Your task to perform on an android device: What's the news in Ecuador? Image 0: 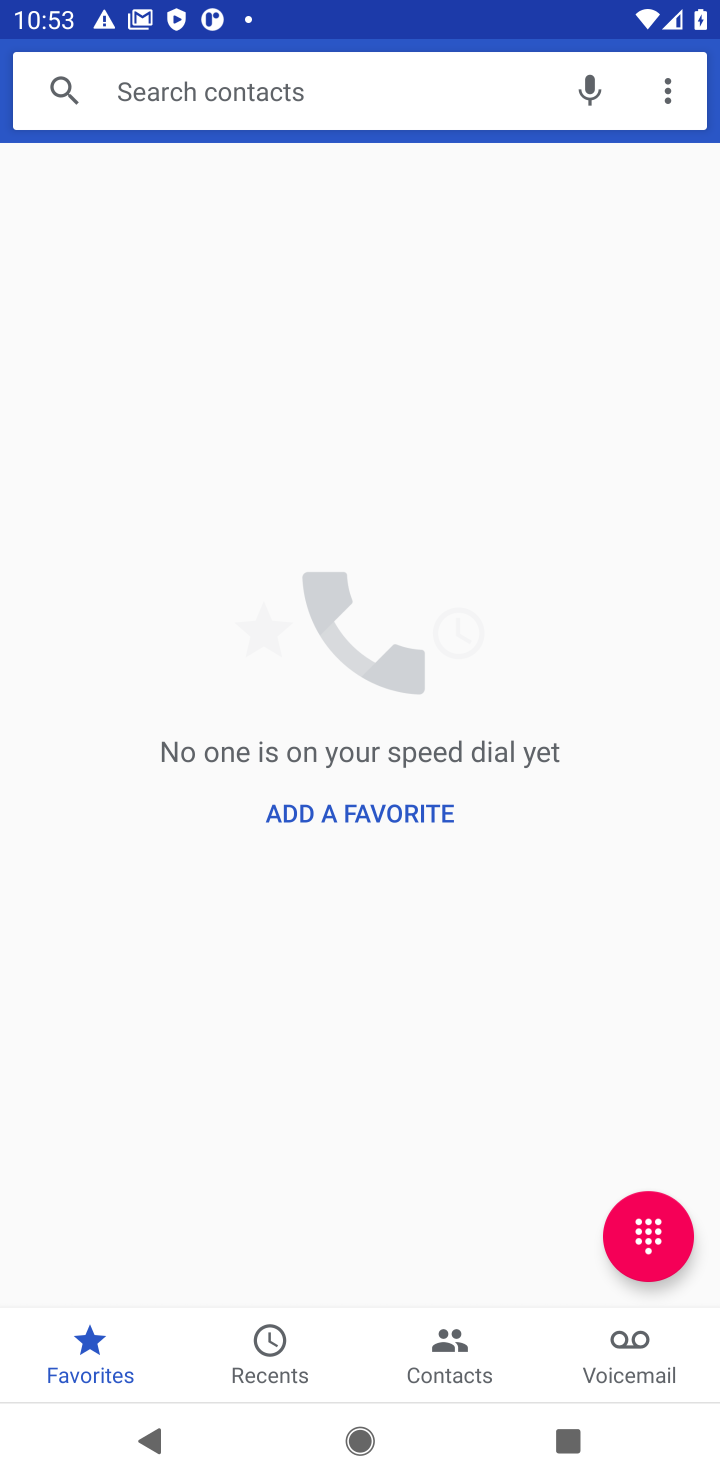
Step 0: press home button
Your task to perform on an android device: What's the news in Ecuador? Image 1: 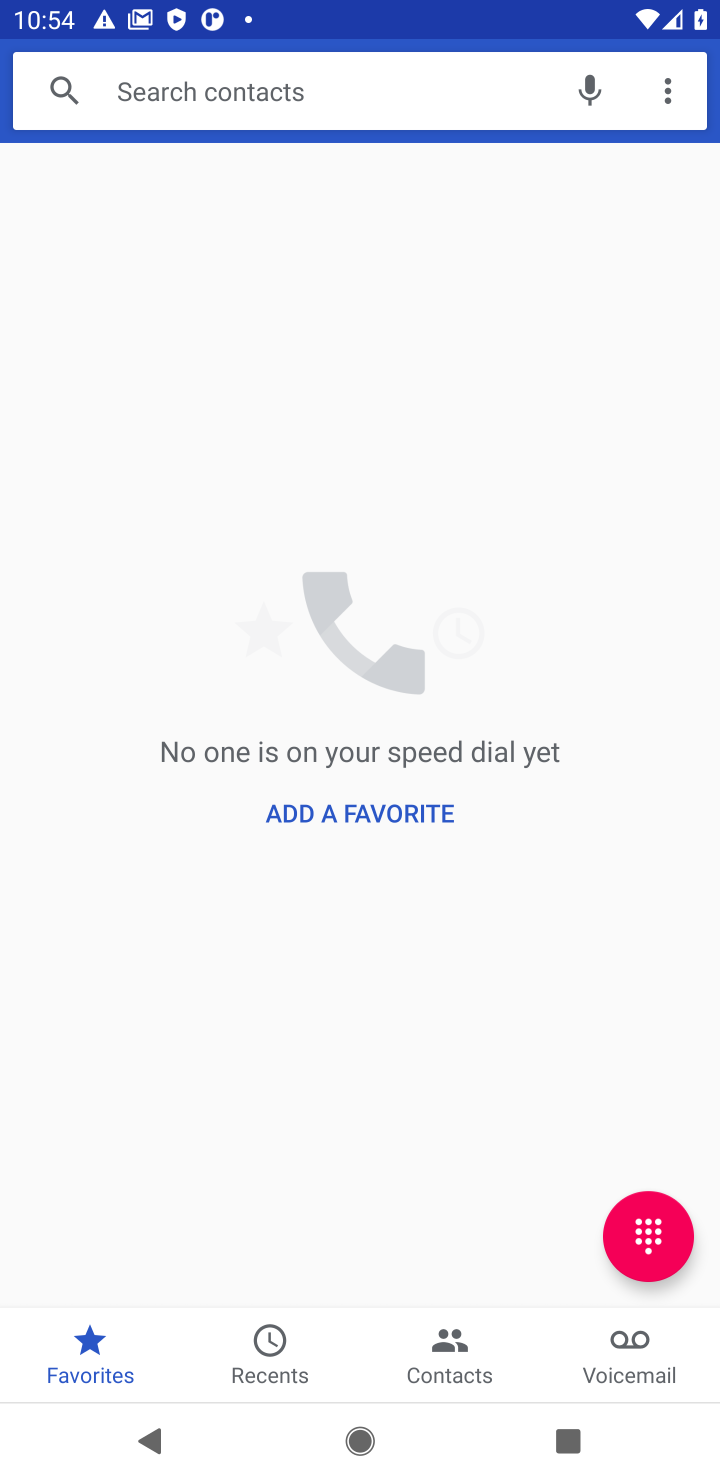
Step 1: press home button
Your task to perform on an android device: What's the news in Ecuador? Image 2: 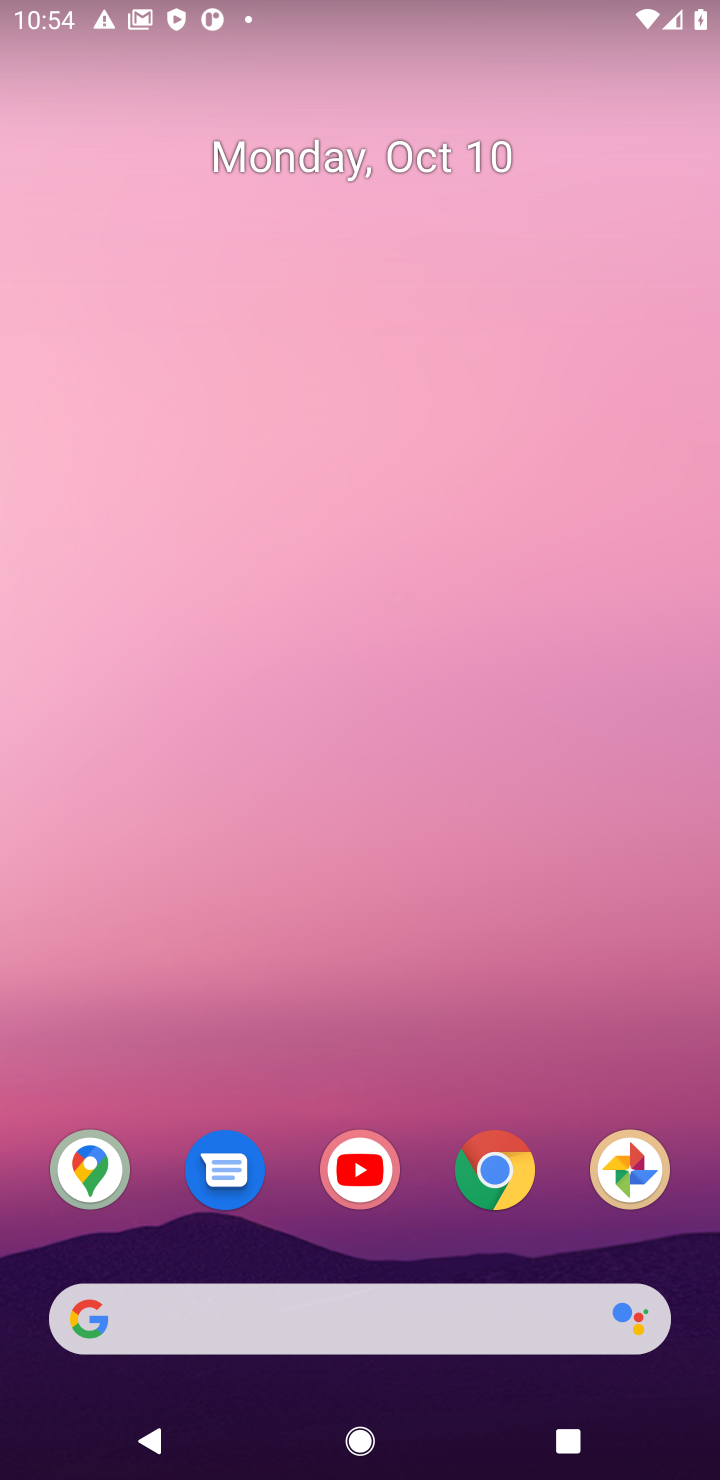
Step 2: click (510, 1155)
Your task to perform on an android device: What's the news in Ecuador? Image 3: 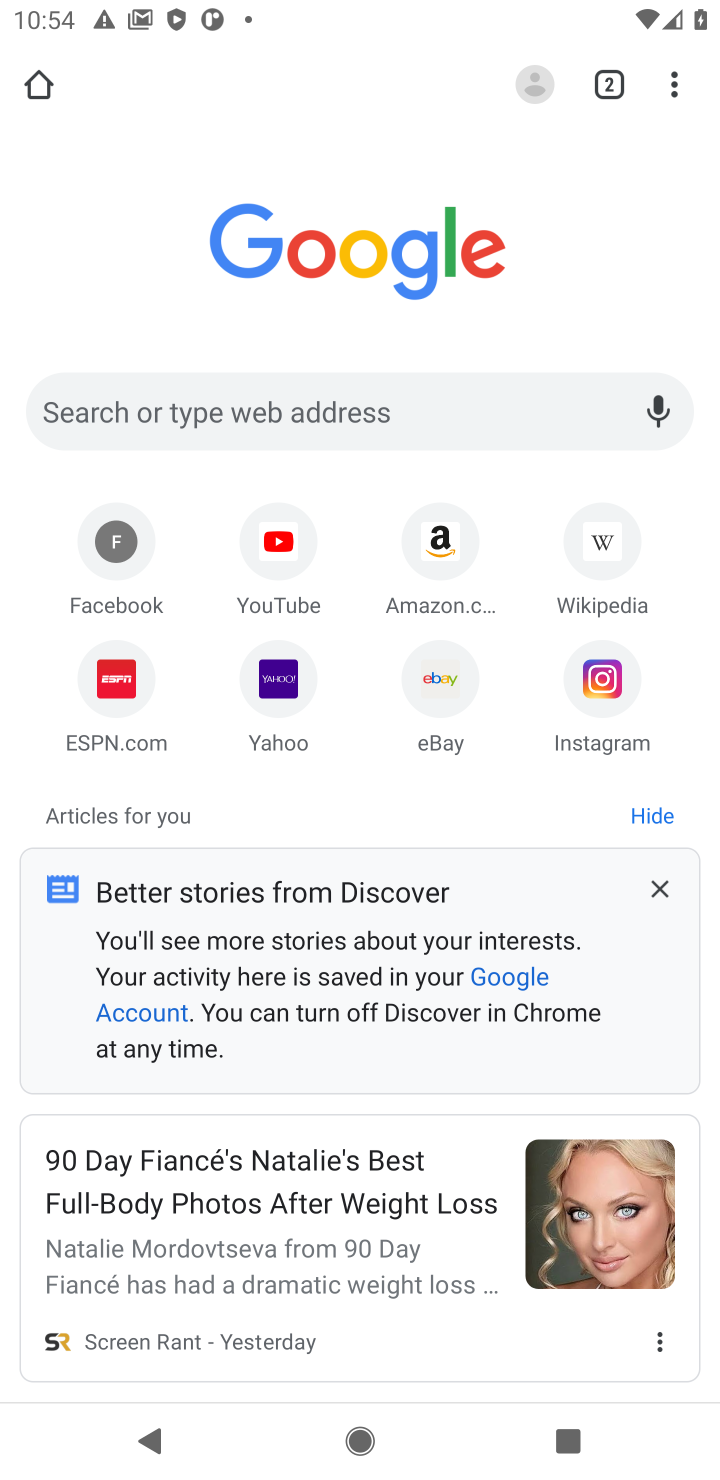
Step 3: click (403, 413)
Your task to perform on an android device: What's the news in Ecuador? Image 4: 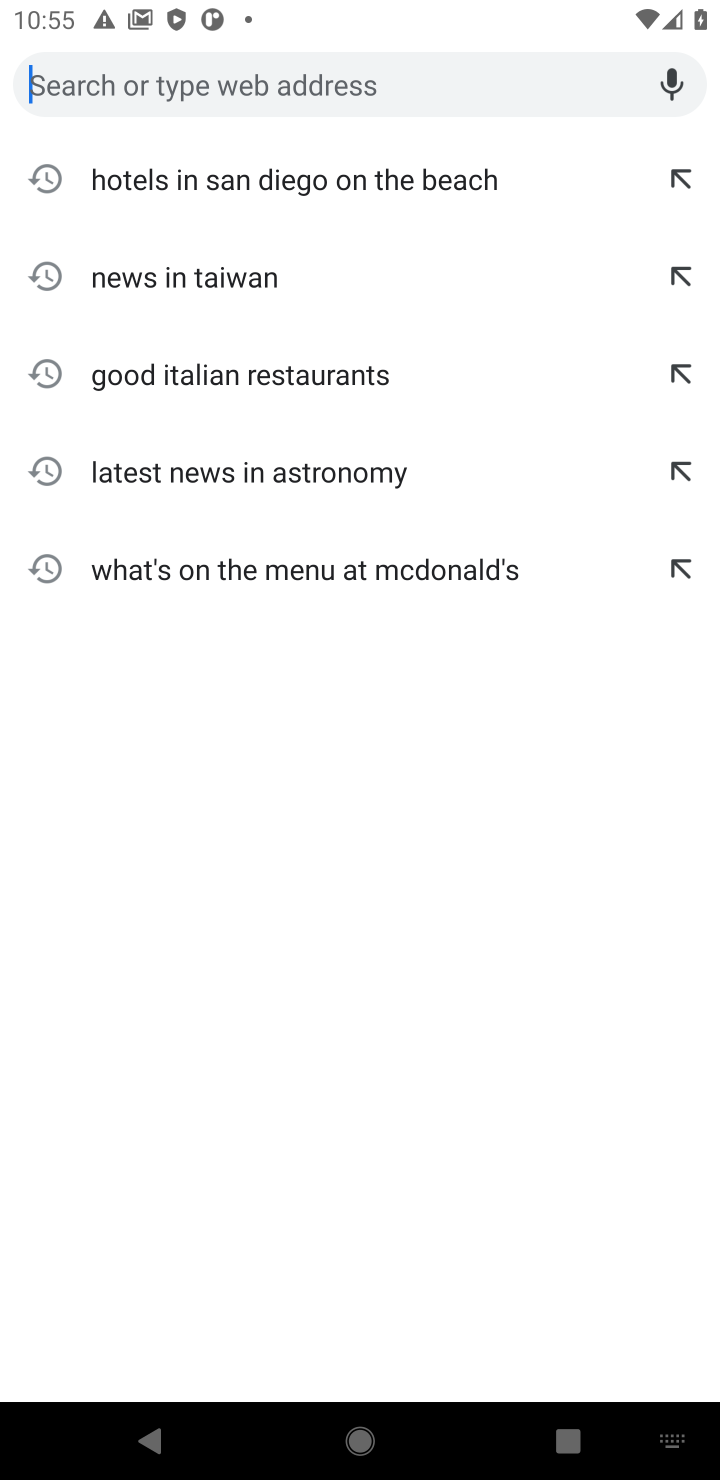
Step 4: type "news in Ecuador"
Your task to perform on an android device: What's the news in Ecuador? Image 5: 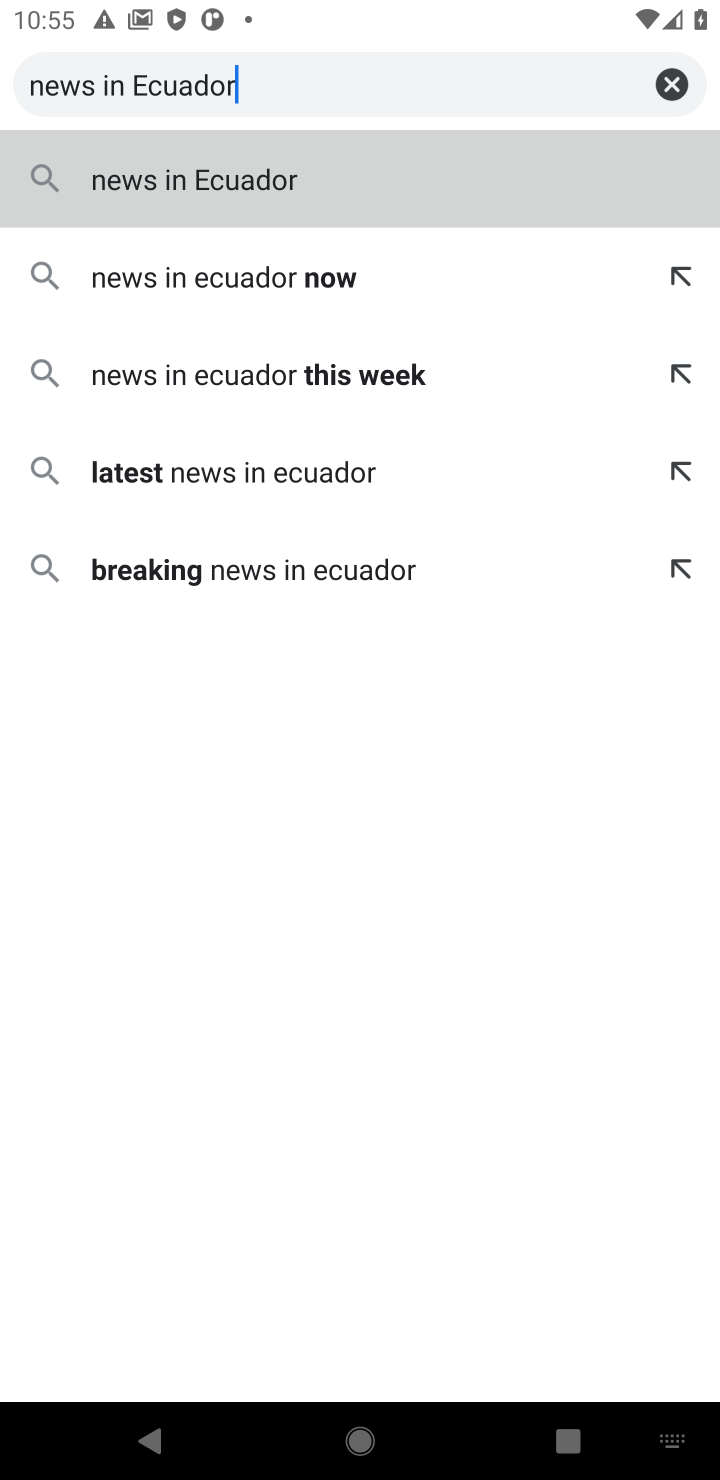
Step 5: click (352, 171)
Your task to perform on an android device: What's the news in Ecuador? Image 6: 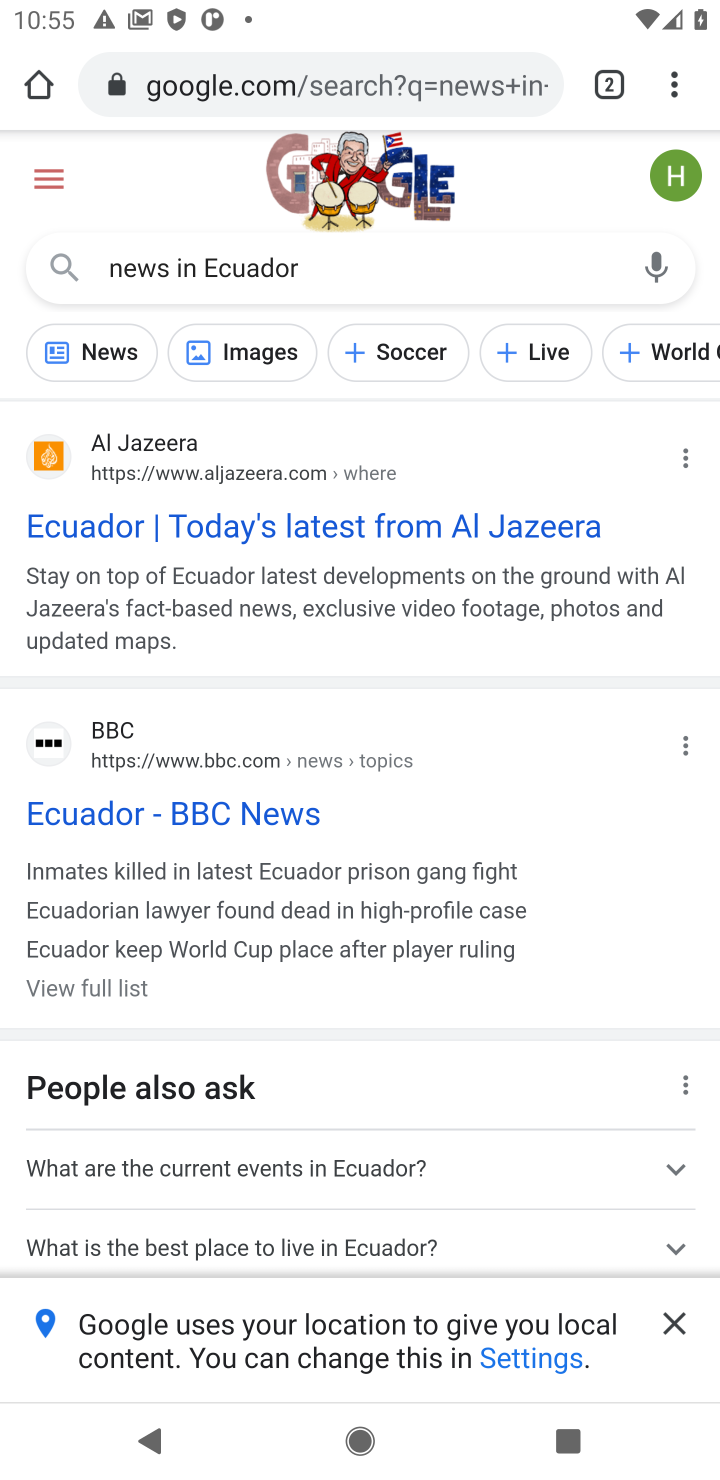
Step 6: task complete